Your task to perform on an android device: find photos in the google photos app Image 0: 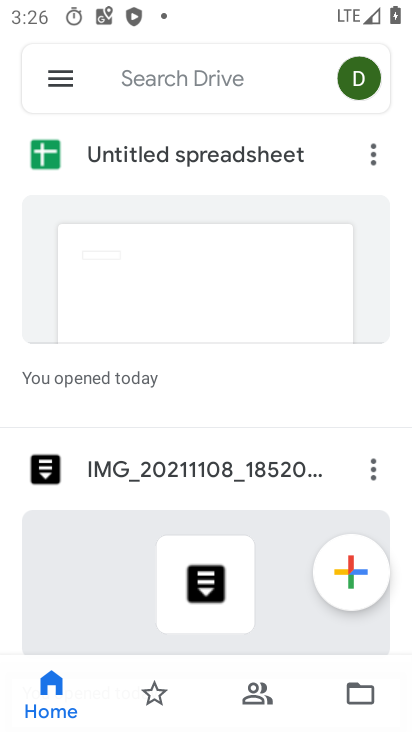
Step 0: press home button
Your task to perform on an android device: find photos in the google photos app Image 1: 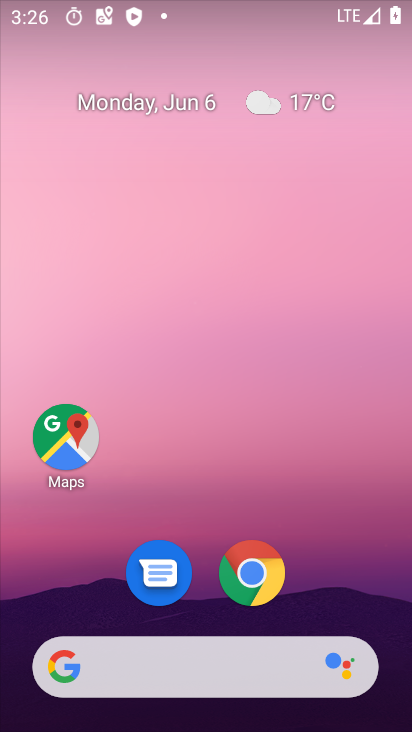
Step 1: drag from (343, 578) to (355, 214)
Your task to perform on an android device: find photos in the google photos app Image 2: 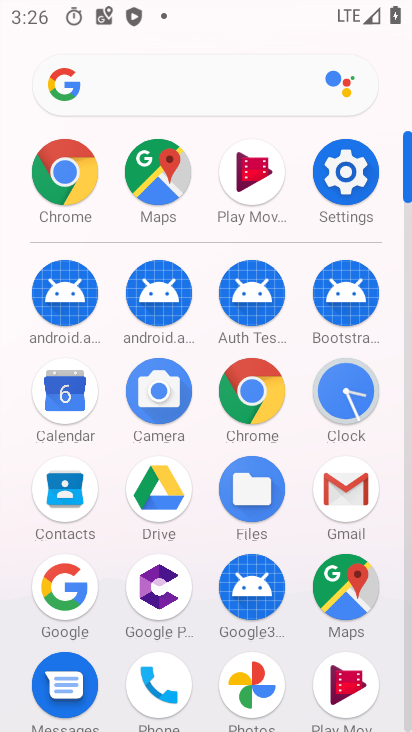
Step 2: click (245, 691)
Your task to perform on an android device: find photos in the google photos app Image 3: 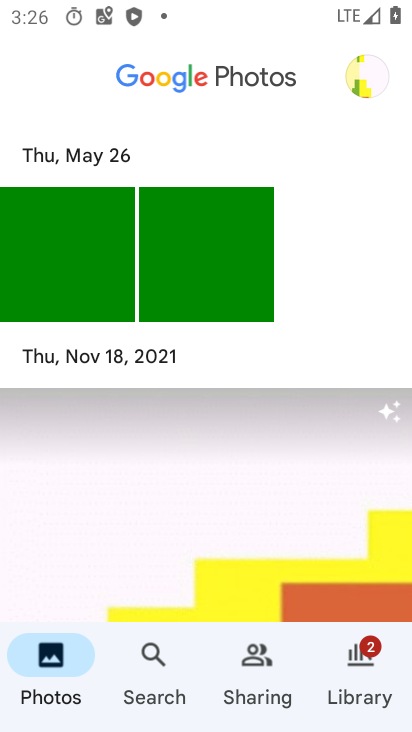
Step 3: click (88, 286)
Your task to perform on an android device: find photos in the google photos app Image 4: 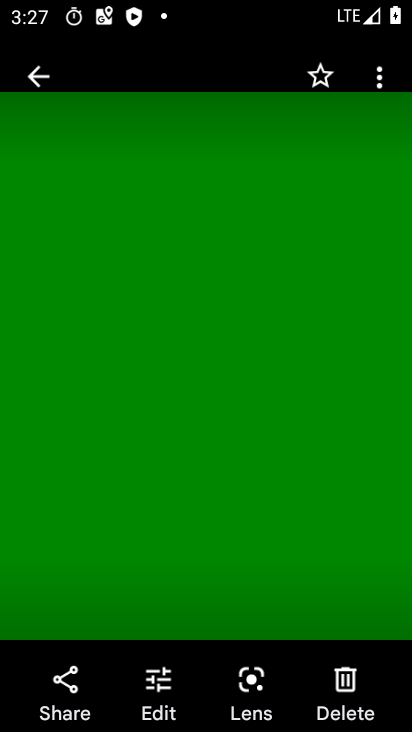
Step 4: task complete